Your task to perform on an android device: check battery use Image 0: 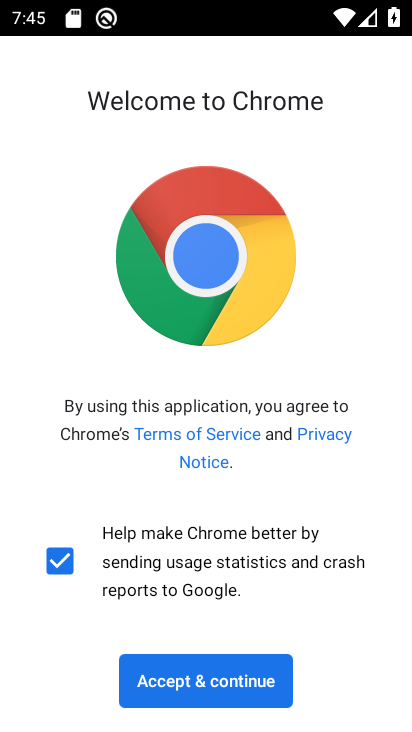
Step 0: press home button
Your task to perform on an android device: check battery use Image 1: 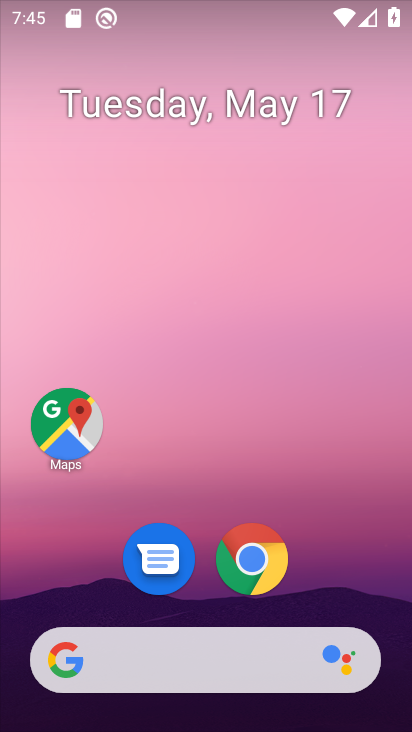
Step 1: drag from (234, 451) to (382, 3)
Your task to perform on an android device: check battery use Image 2: 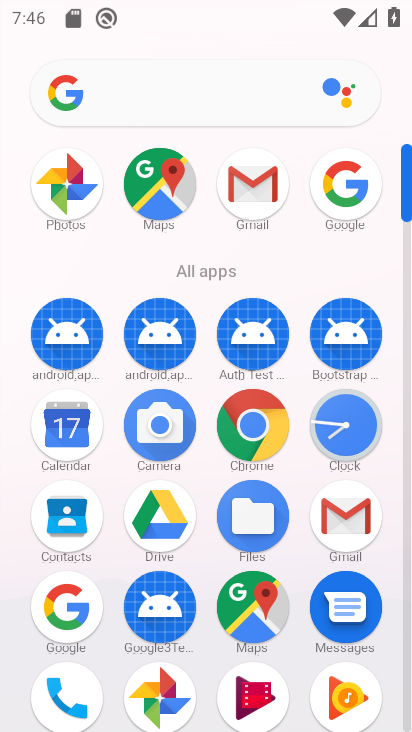
Step 2: drag from (170, 513) to (170, 175)
Your task to perform on an android device: check battery use Image 3: 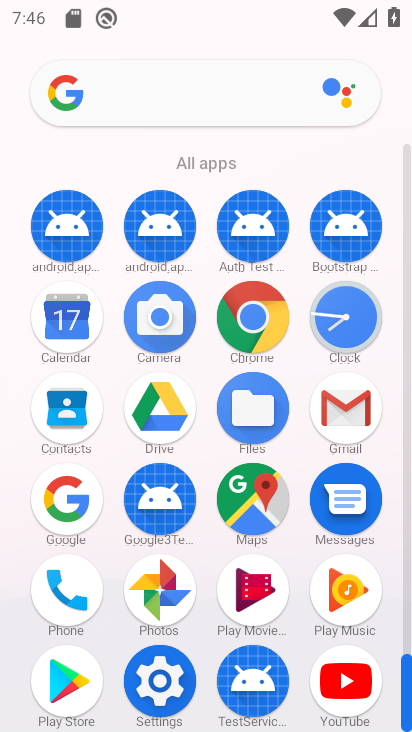
Step 3: click (150, 674)
Your task to perform on an android device: check battery use Image 4: 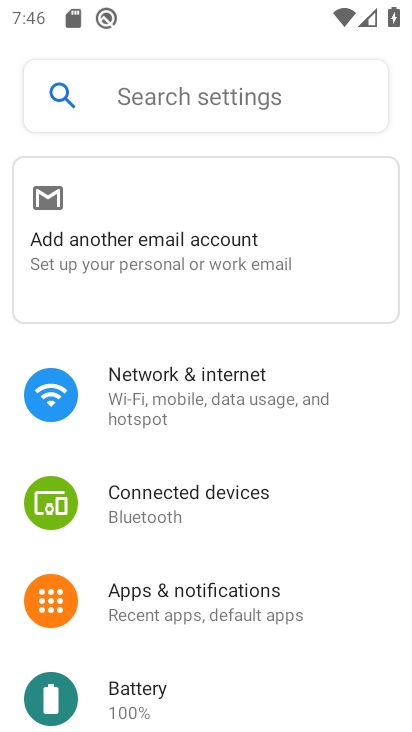
Step 4: click (236, 571)
Your task to perform on an android device: check battery use Image 5: 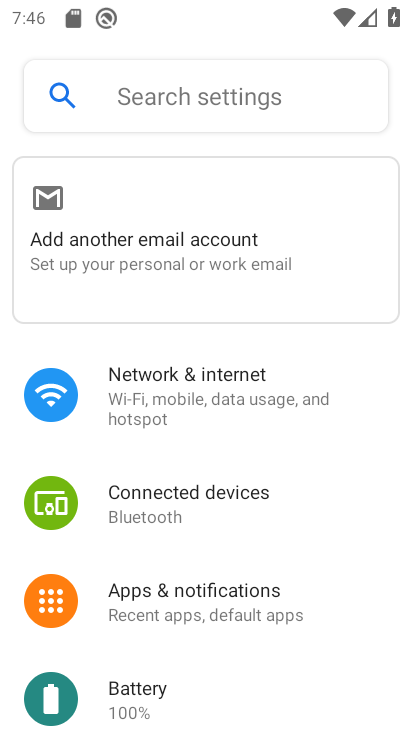
Step 5: drag from (197, 618) to (168, 204)
Your task to perform on an android device: check battery use Image 6: 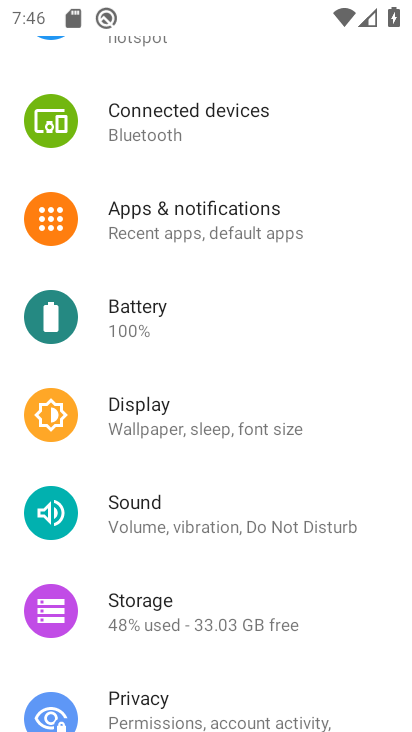
Step 6: click (153, 330)
Your task to perform on an android device: check battery use Image 7: 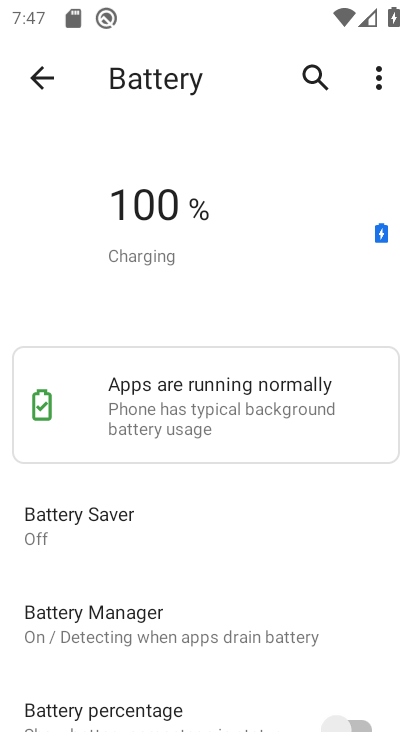
Step 7: task complete